Your task to perform on an android device: Is it going to rain this weekend? Image 0: 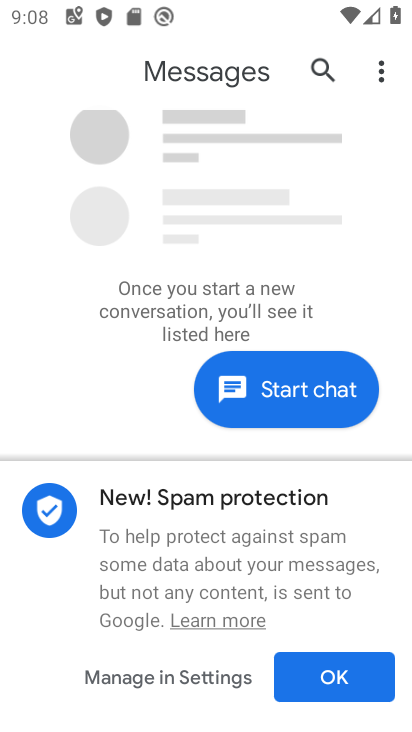
Step 0: press back button
Your task to perform on an android device: Is it going to rain this weekend? Image 1: 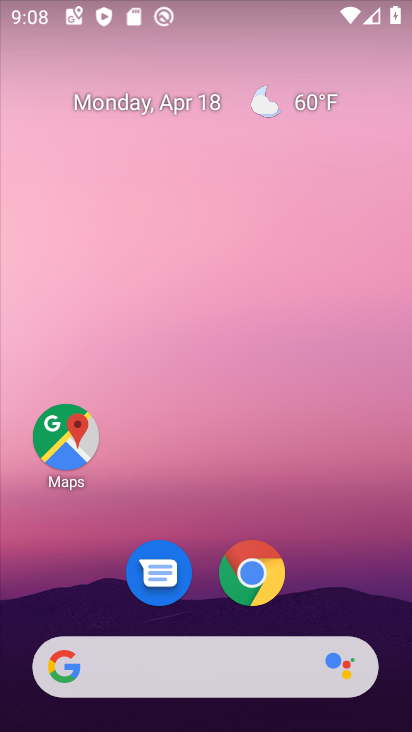
Step 1: click (259, 98)
Your task to perform on an android device: Is it going to rain this weekend? Image 2: 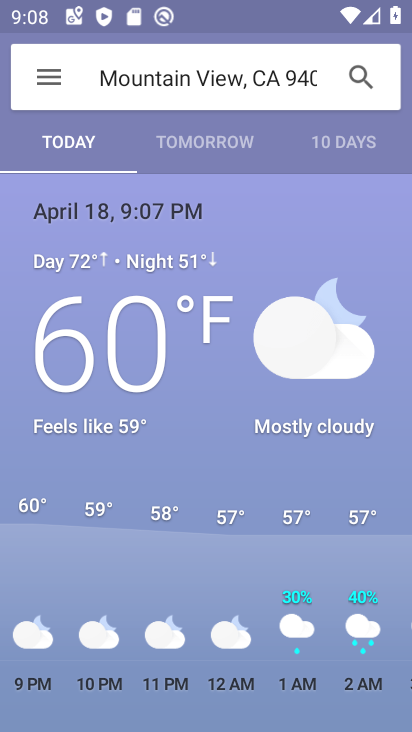
Step 2: task complete